Your task to perform on an android device: Open battery settings Image 0: 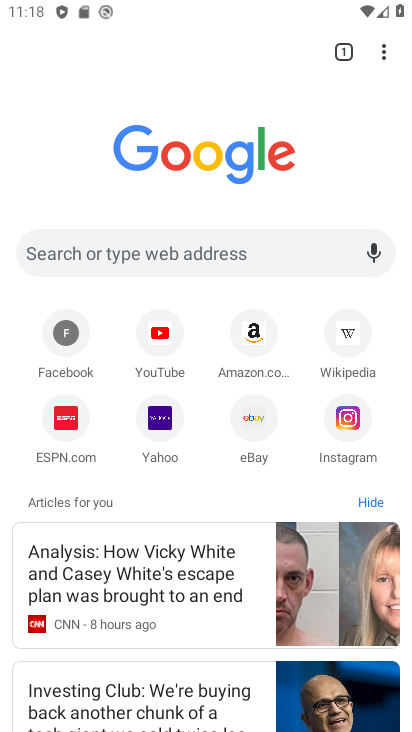
Step 0: press back button
Your task to perform on an android device: Open battery settings Image 1: 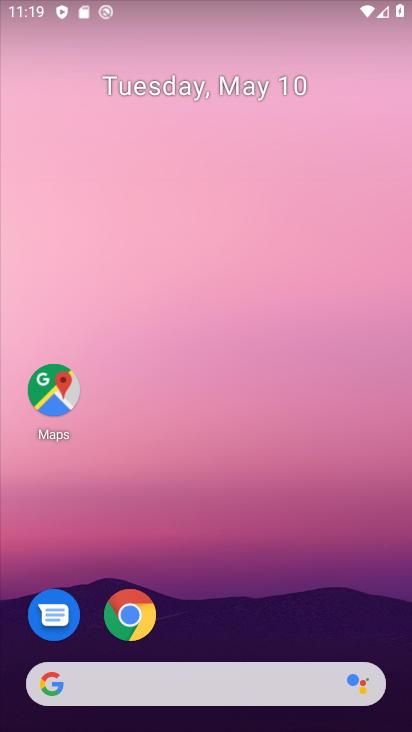
Step 1: drag from (255, 531) to (233, 21)
Your task to perform on an android device: Open battery settings Image 2: 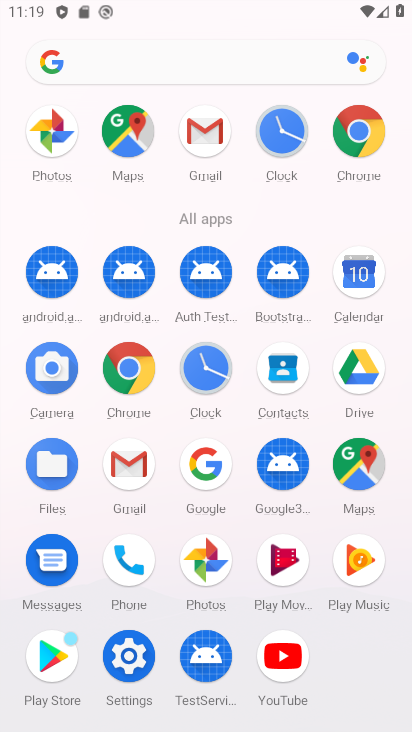
Step 2: drag from (11, 569) to (34, 251)
Your task to perform on an android device: Open battery settings Image 3: 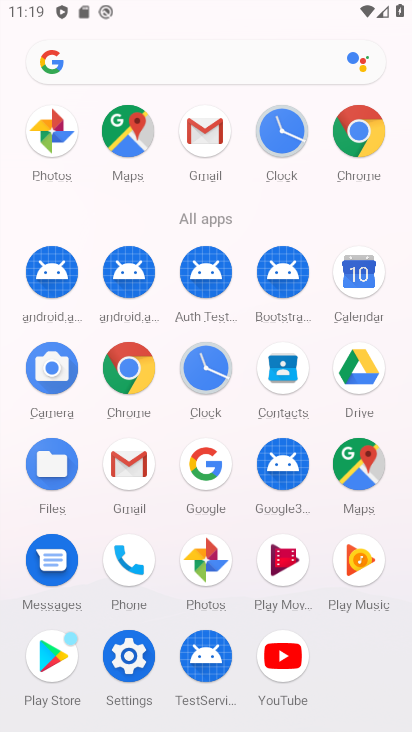
Step 3: click (125, 657)
Your task to perform on an android device: Open battery settings Image 4: 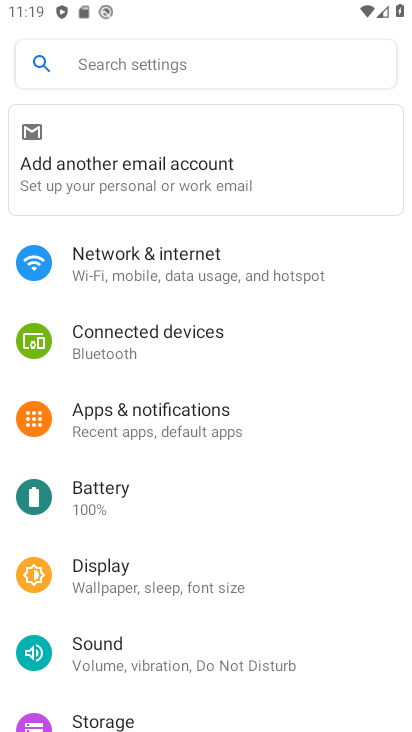
Step 4: drag from (337, 522) to (340, 99)
Your task to perform on an android device: Open battery settings Image 5: 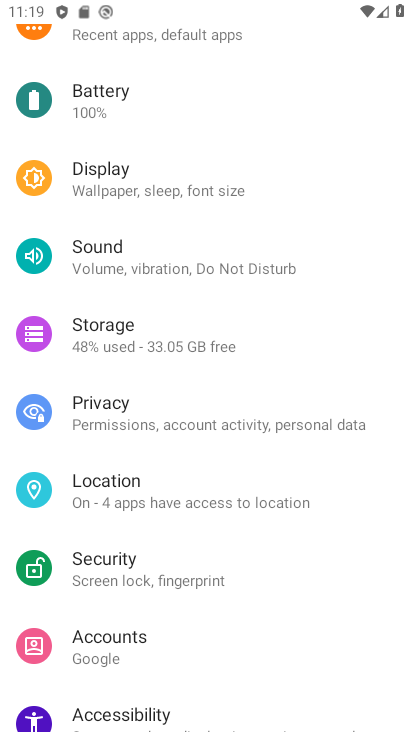
Step 5: click (165, 106)
Your task to perform on an android device: Open battery settings Image 6: 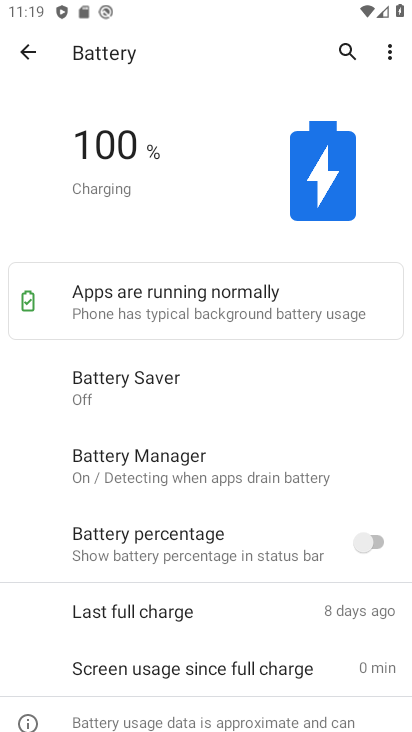
Step 6: task complete